Your task to perform on an android device: Open network settings Image 0: 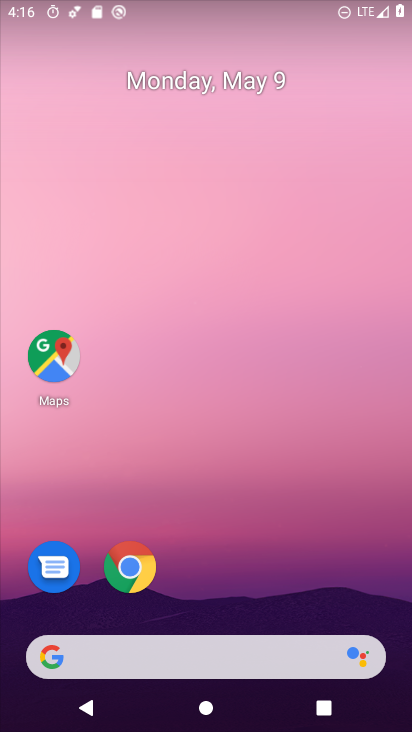
Step 0: drag from (225, 392) to (181, 164)
Your task to perform on an android device: Open network settings Image 1: 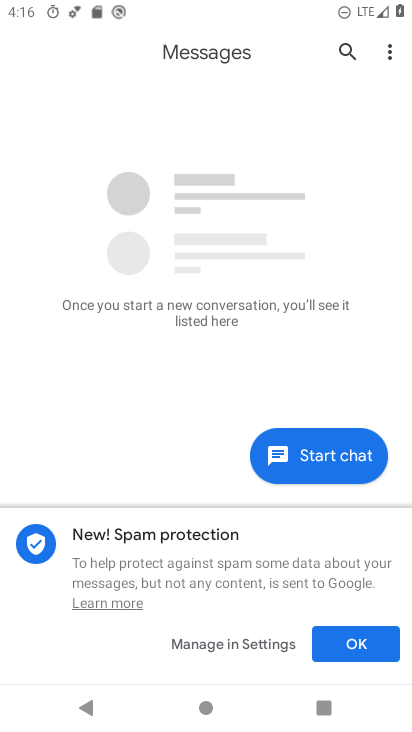
Step 1: press home button
Your task to perform on an android device: Open network settings Image 2: 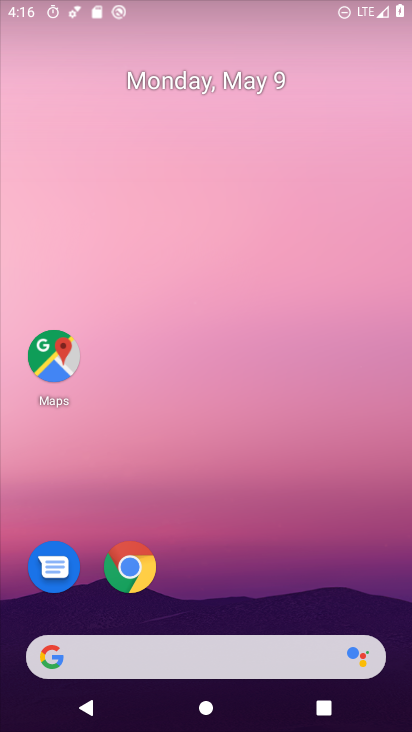
Step 2: drag from (260, 485) to (229, 129)
Your task to perform on an android device: Open network settings Image 3: 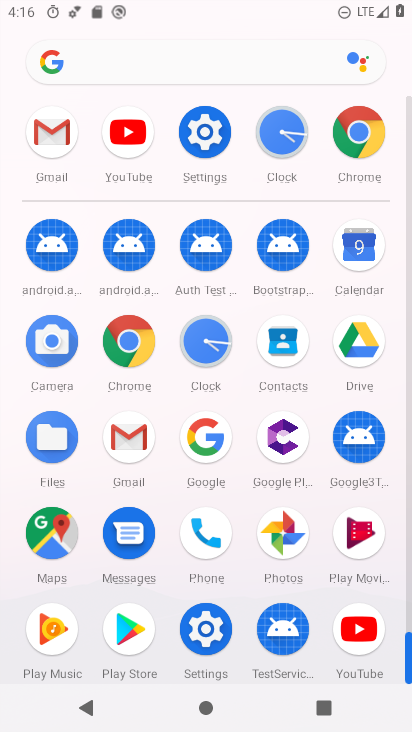
Step 3: click (206, 135)
Your task to perform on an android device: Open network settings Image 4: 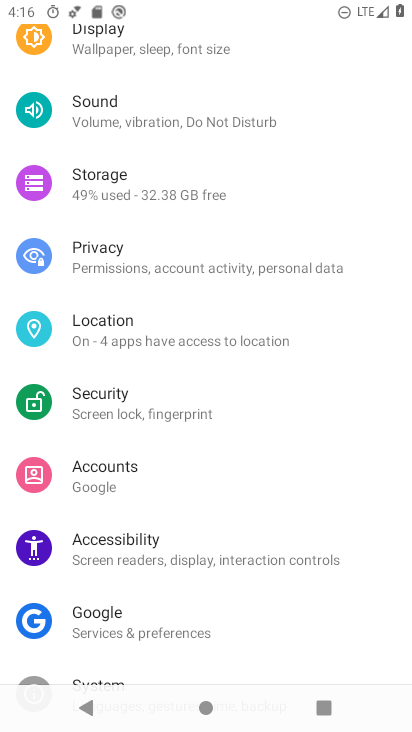
Step 4: drag from (231, 106) to (234, 506)
Your task to perform on an android device: Open network settings Image 5: 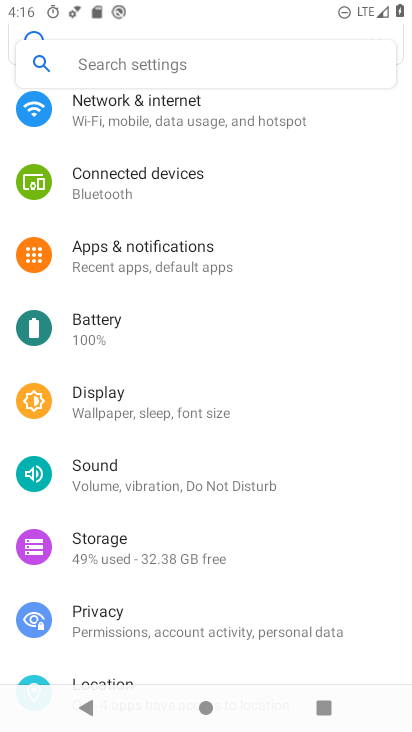
Step 5: click (156, 114)
Your task to perform on an android device: Open network settings Image 6: 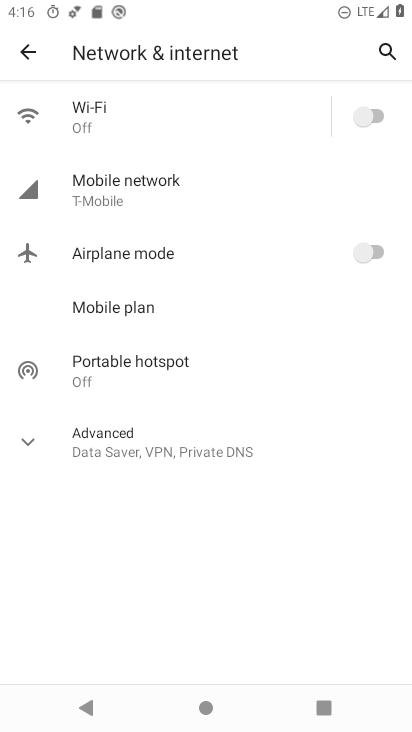
Step 6: task complete